Your task to perform on an android device: create a new album in the google photos Image 0: 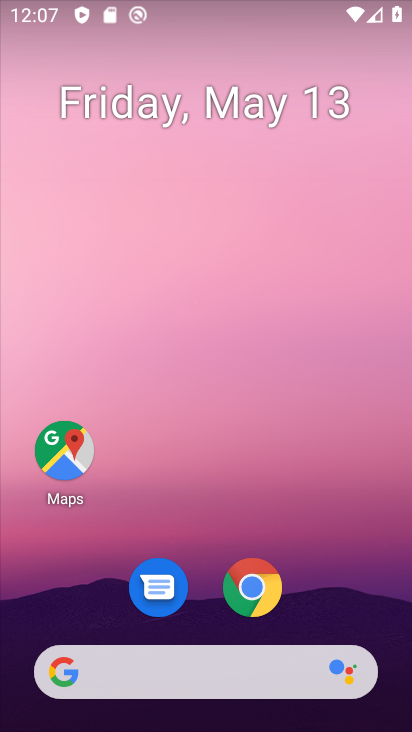
Step 0: drag from (194, 631) to (288, 53)
Your task to perform on an android device: create a new album in the google photos Image 1: 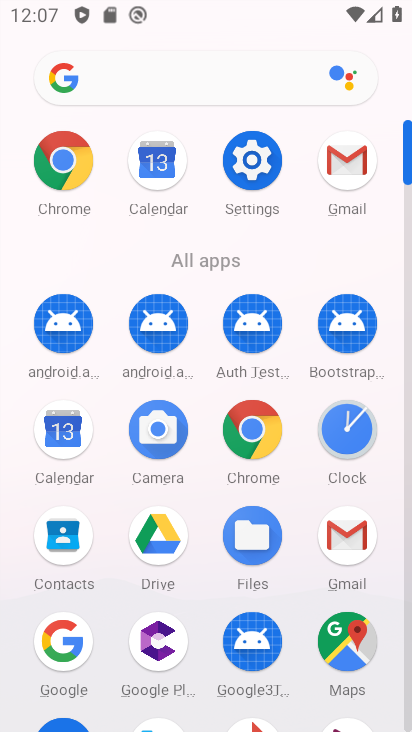
Step 1: drag from (218, 630) to (279, 158)
Your task to perform on an android device: create a new album in the google photos Image 2: 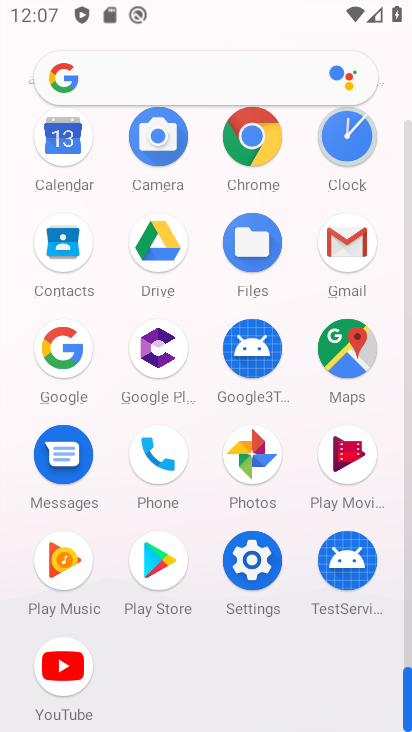
Step 2: click (257, 451)
Your task to perform on an android device: create a new album in the google photos Image 3: 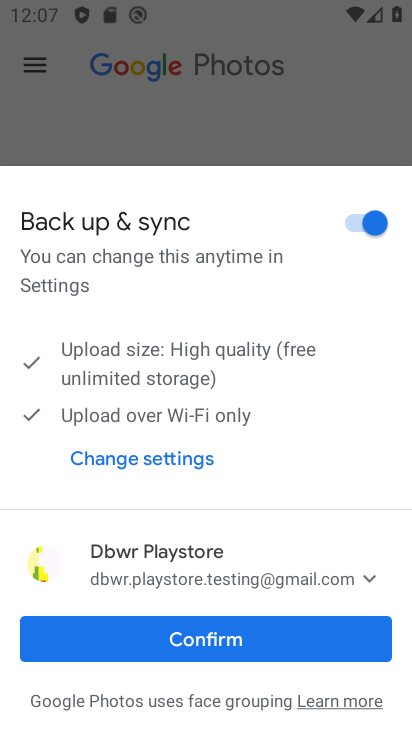
Step 3: click (210, 620)
Your task to perform on an android device: create a new album in the google photos Image 4: 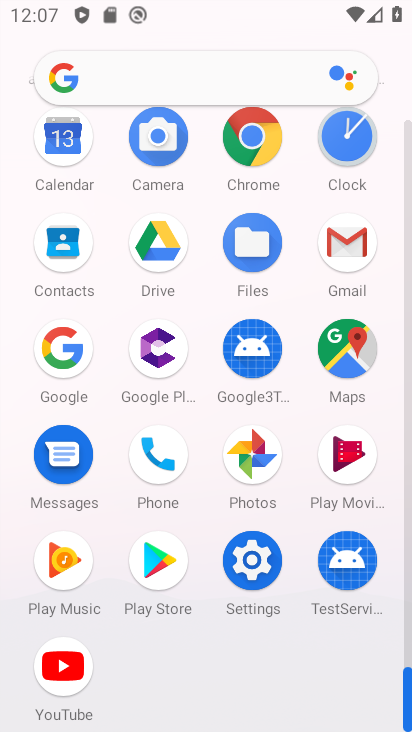
Step 4: click (240, 457)
Your task to perform on an android device: create a new album in the google photos Image 5: 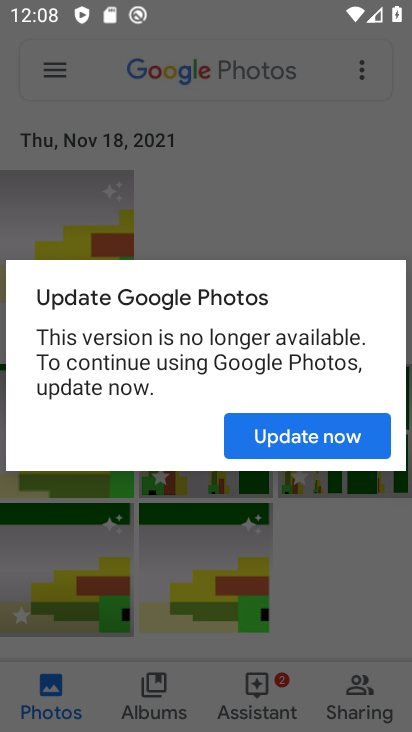
Step 5: click (317, 444)
Your task to perform on an android device: create a new album in the google photos Image 6: 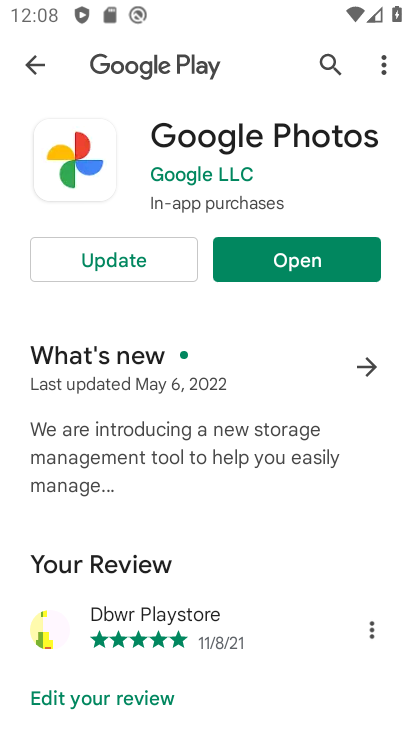
Step 6: click (261, 267)
Your task to perform on an android device: create a new album in the google photos Image 7: 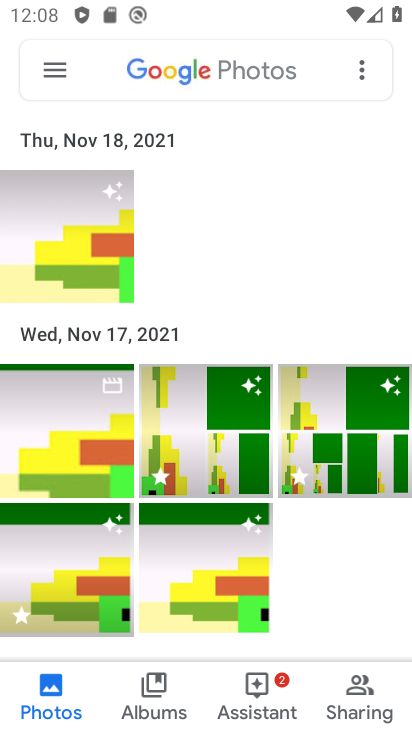
Step 7: click (149, 686)
Your task to perform on an android device: create a new album in the google photos Image 8: 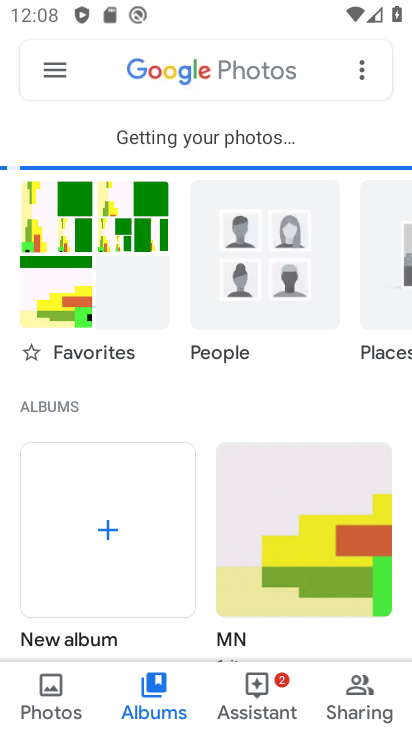
Step 8: click (106, 536)
Your task to perform on an android device: create a new album in the google photos Image 9: 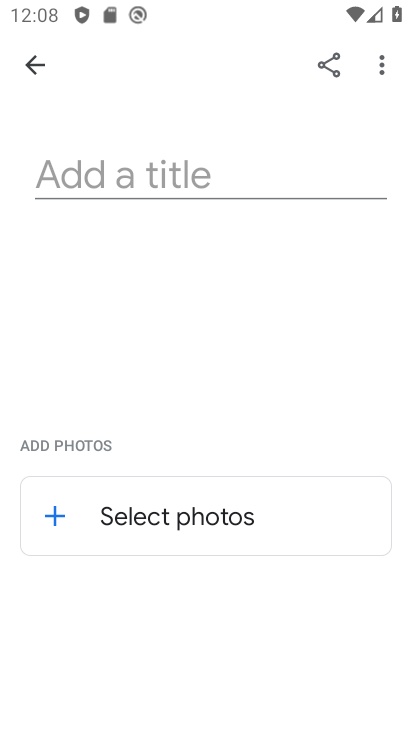
Step 9: click (154, 169)
Your task to perform on an android device: create a new album in the google photos Image 10: 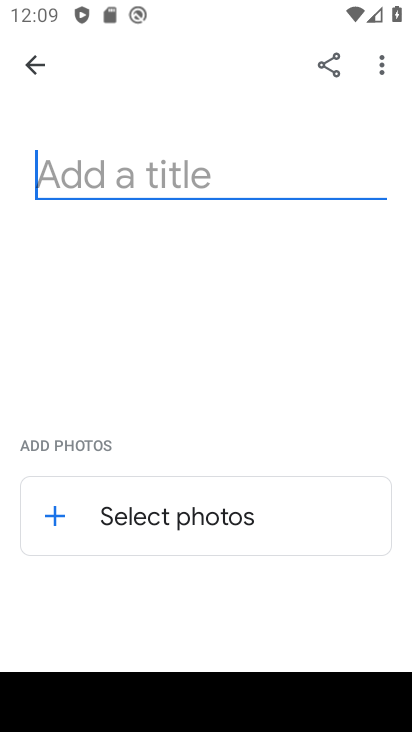
Step 10: type "hvhv"
Your task to perform on an android device: create a new album in the google photos Image 11: 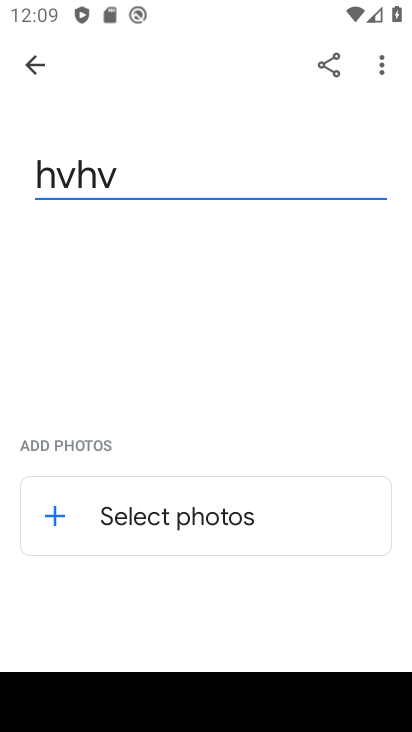
Step 11: click (212, 509)
Your task to perform on an android device: create a new album in the google photos Image 12: 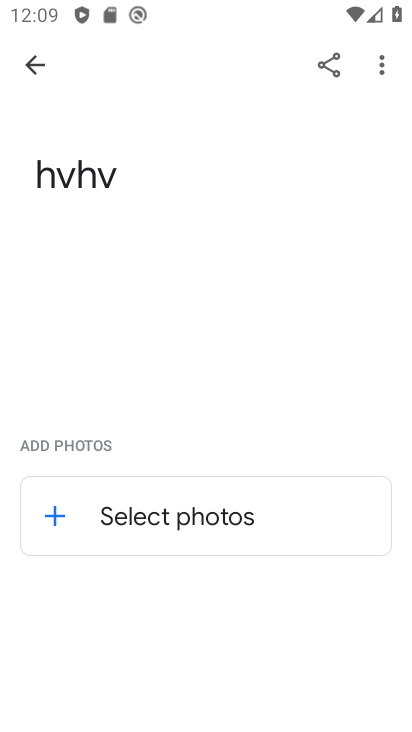
Step 12: click (155, 517)
Your task to perform on an android device: create a new album in the google photos Image 13: 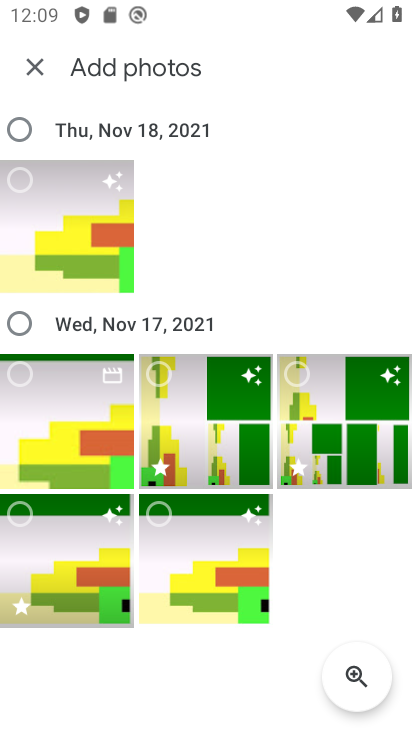
Step 13: click (7, 114)
Your task to perform on an android device: create a new album in the google photos Image 14: 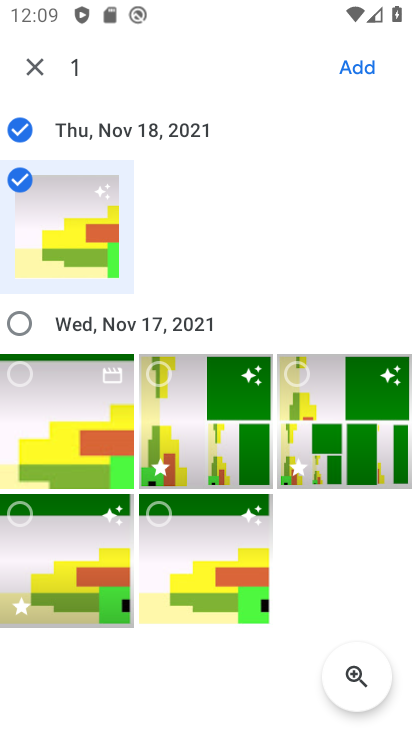
Step 14: click (362, 64)
Your task to perform on an android device: create a new album in the google photos Image 15: 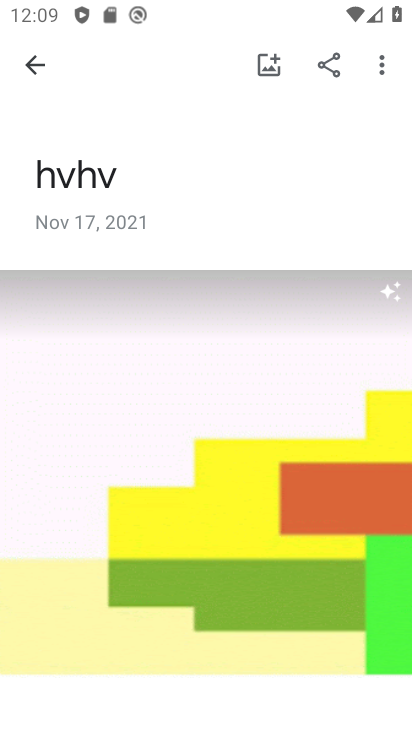
Step 15: task complete